Your task to perform on an android device: add a contact Image 0: 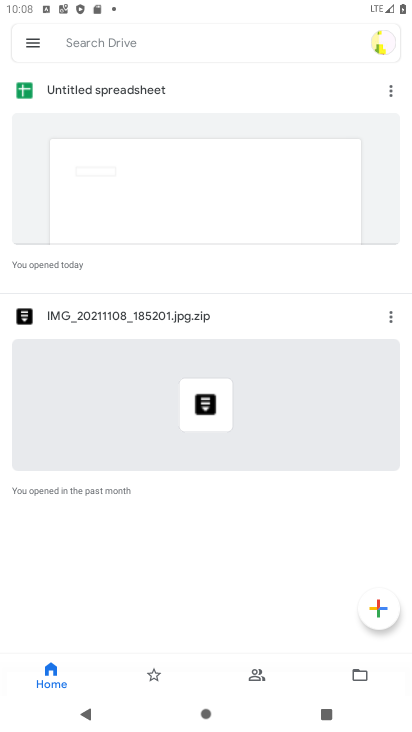
Step 0: press home button
Your task to perform on an android device: add a contact Image 1: 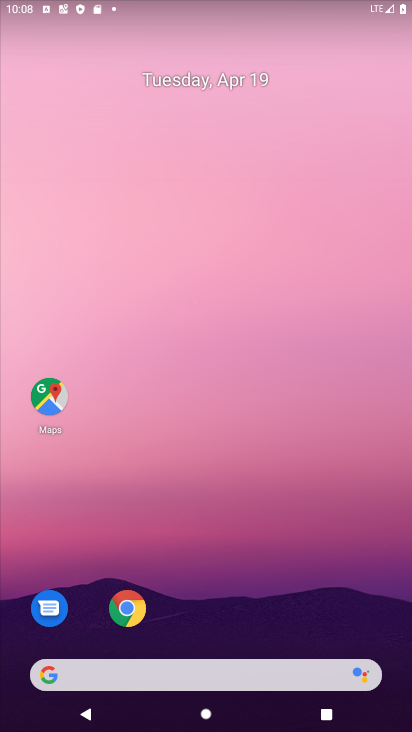
Step 1: drag from (339, 615) to (314, 149)
Your task to perform on an android device: add a contact Image 2: 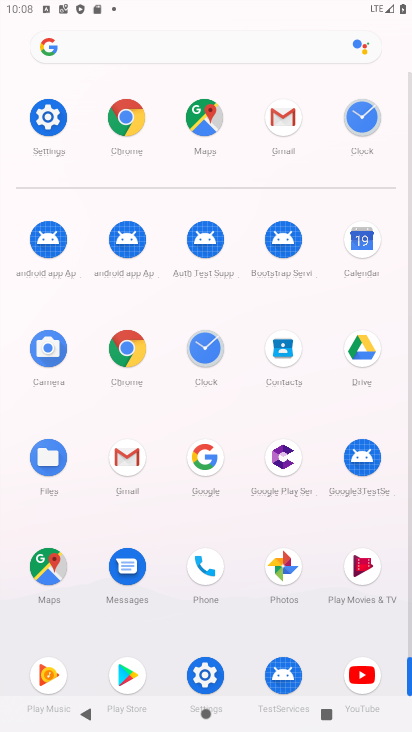
Step 2: click (283, 347)
Your task to perform on an android device: add a contact Image 3: 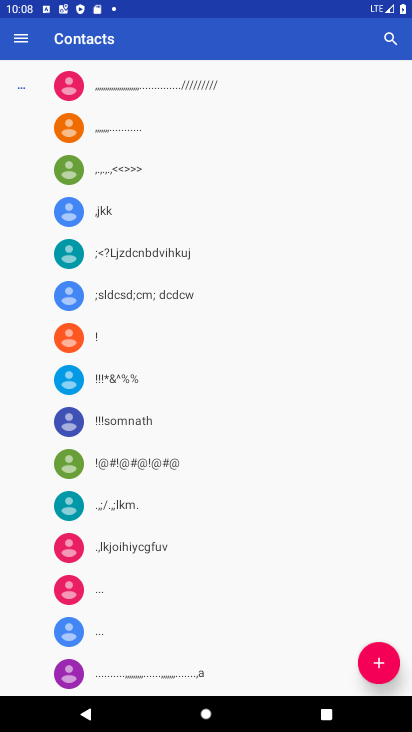
Step 3: click (373, 661)
Your task to perform on an android device: add a contact Image 4: 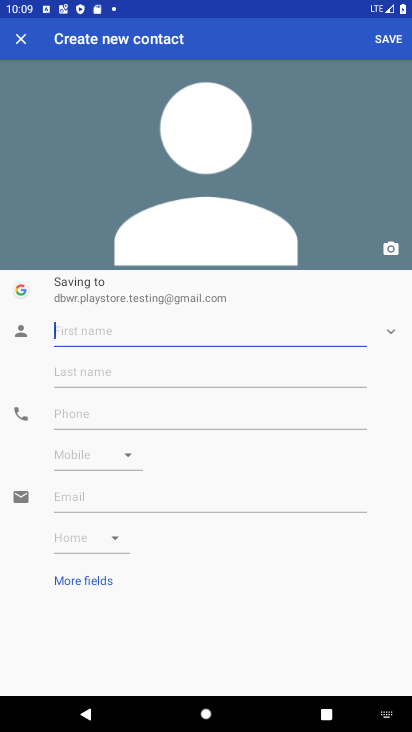
Step 4: type "ghheetyy"
Your task to perform on an android device: add a contact Image 5: 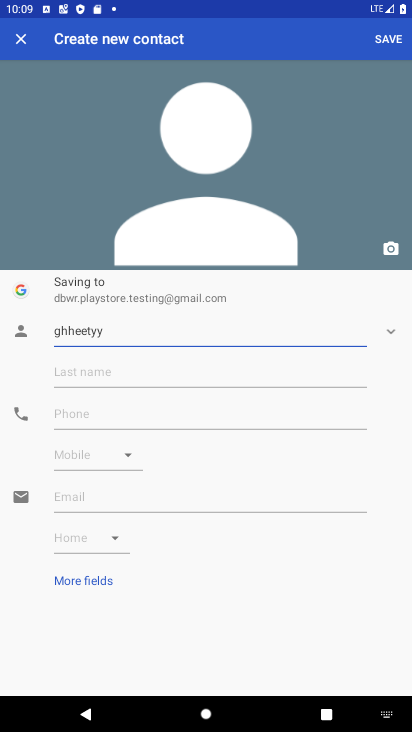
Step 5: click (104, 418)
Your task to perform on an android device: add a contact Image 6: 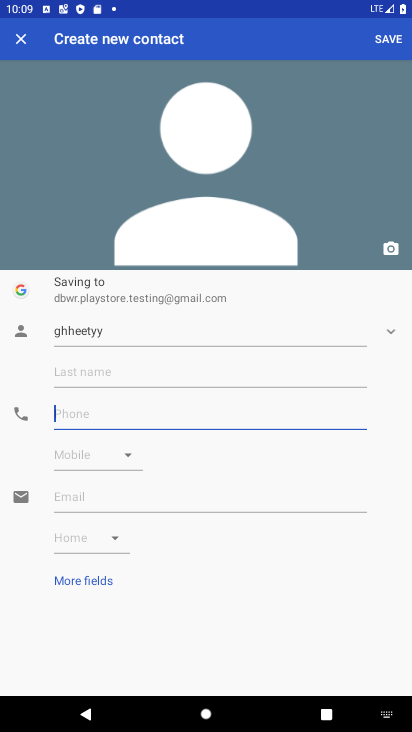
Step 6: type "092345680"
Your task to perform on an android device: add a contact Image 7: 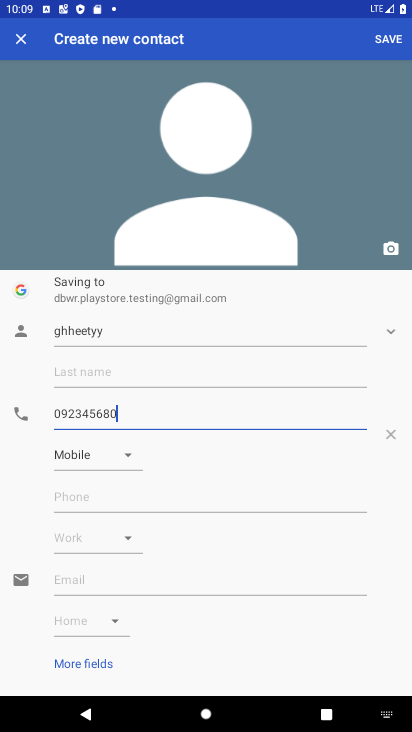
Step 7: click (121, 454)
Your task to perform on an android device: add a contact Image 8: 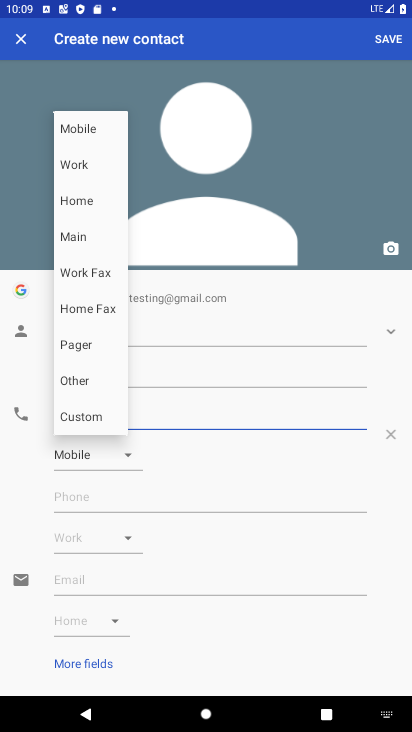
Step 8: click (74, 161)
Your task to perform on an android device: add a contact Image 9: 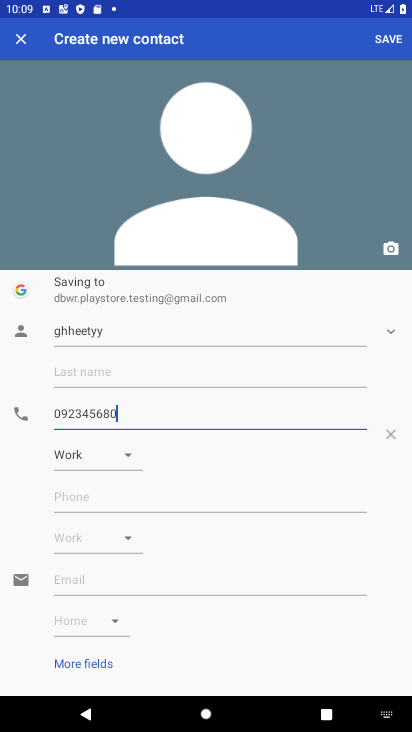
Step 9: click (383, 38)
Your task to perform on an android device: add a contact Image 10: 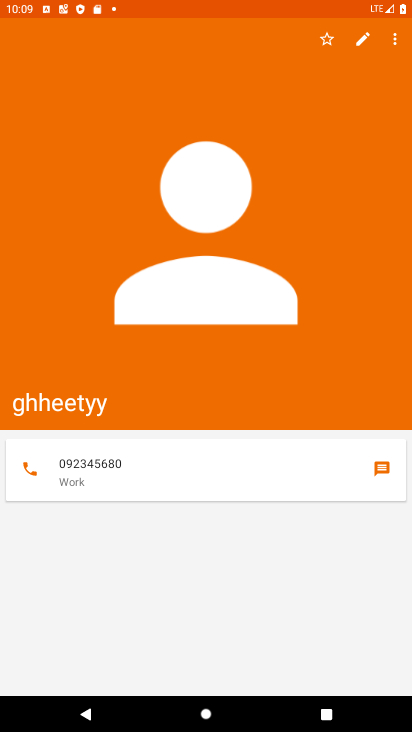
Step 10: task complete